Your task to perform on an android device: Set an alarm for 9am Image 0: 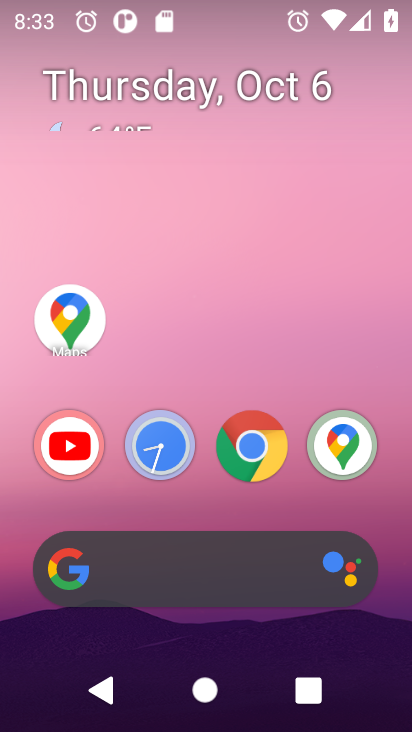
Step 0: click (148, 438)
Your task to perform on an android device: Set an alarm for 9am Image 1: 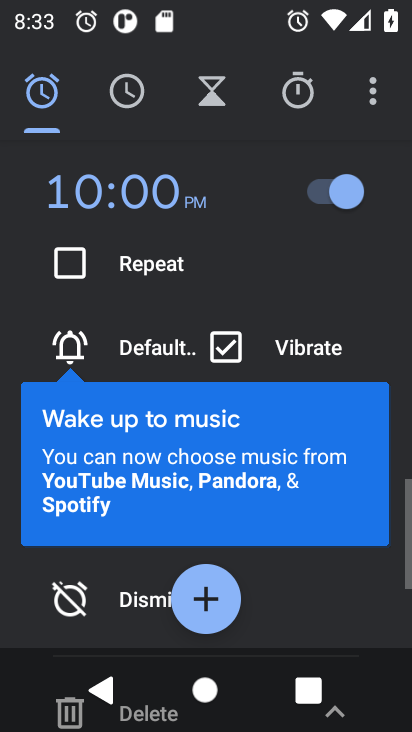
Step 1: click (147, 409)
Your task to perform on an android device: Set an alarm for 9am Image 2: 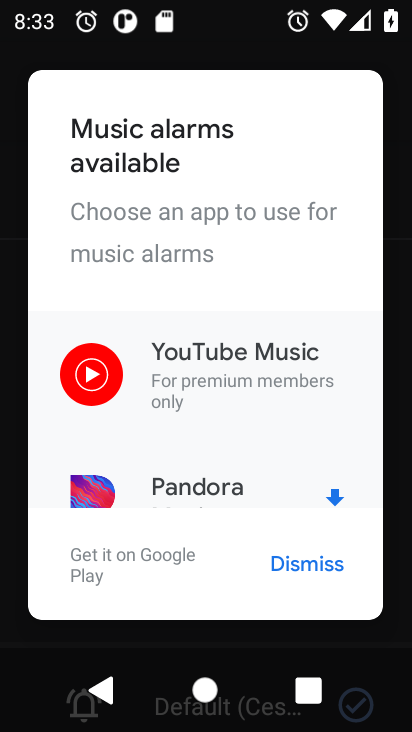
Step 2: click (307, 545)
Your task to perform on an android device: Set an alarm for 9am Image 3: 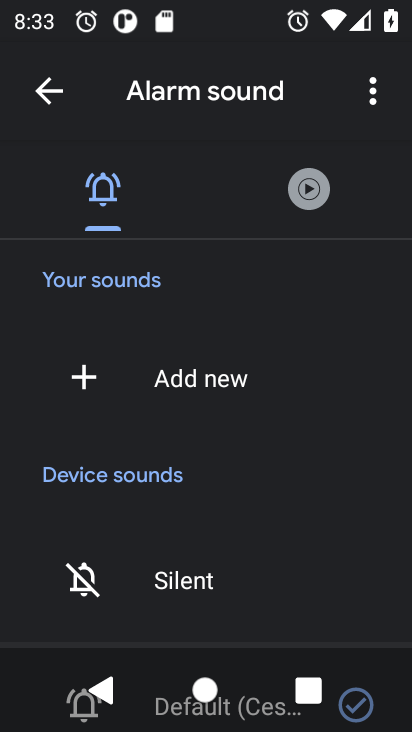
Step 3: click (31, 80)
Your task to perform on an android device: Set an alarm for 9am Image 4: 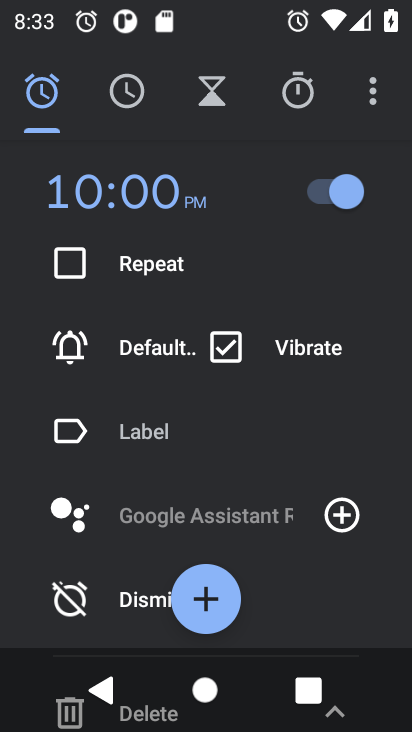
Step 4: click (131, 590)
Your task to perform on an android device: Set an alarm for 9am Image 5: 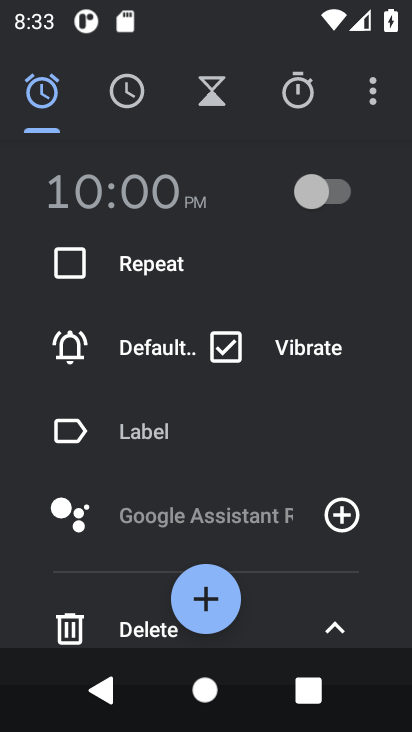
Step 5: click (47, 109)
Your task to perform on an android device: Set an alarm for 9am Image 6: 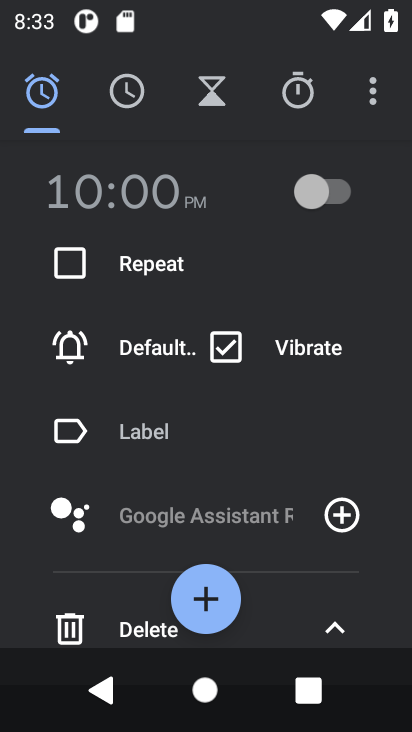
Step 6: click (217, 612)
Your task to perform on an android device: Set an alarm for 9am Image 7: 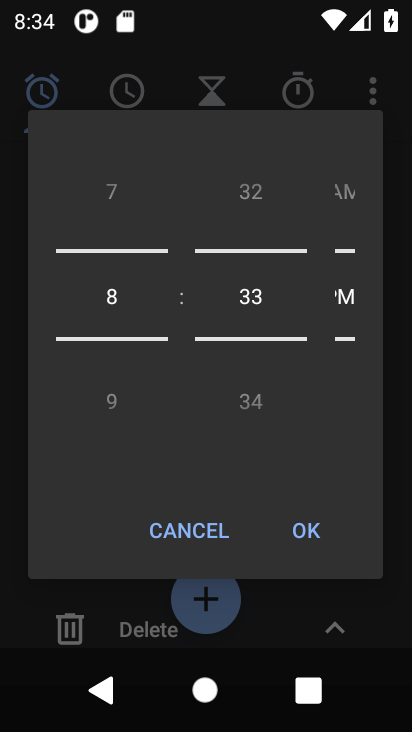
Step 7: click (105, 411)
Your task to perform on an android device: Set an alarm for 9am Image 8: 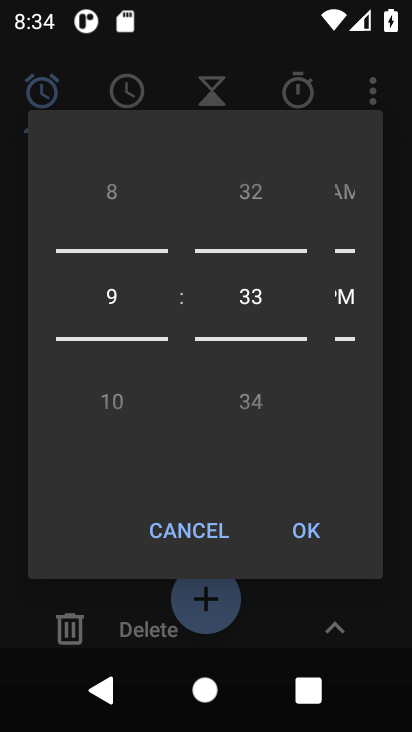
Step 8: click (114, 403)
Your task to perform on an android device: Set an alarm for 9am Image 9: 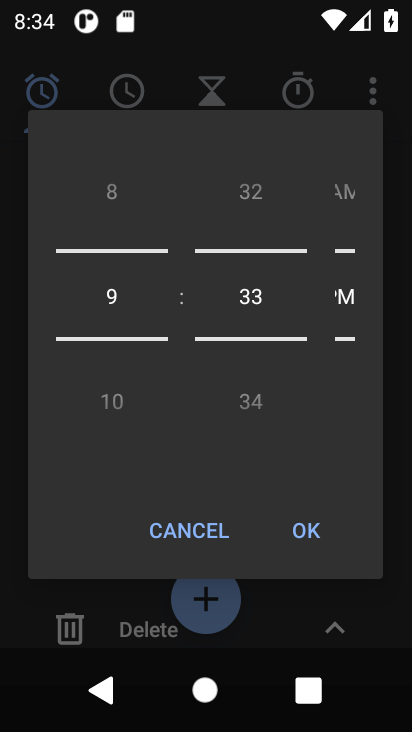
Step 9: click (243, 294)
Your task to perform on an android device: Set an alarm for 9am Image 10: 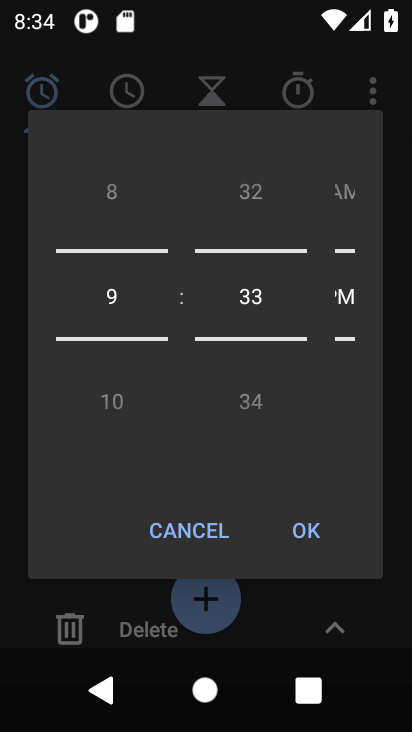
Step 10: click (243, 294)
Your task to perform on an android device: Set an alarm for 9am Image 11: 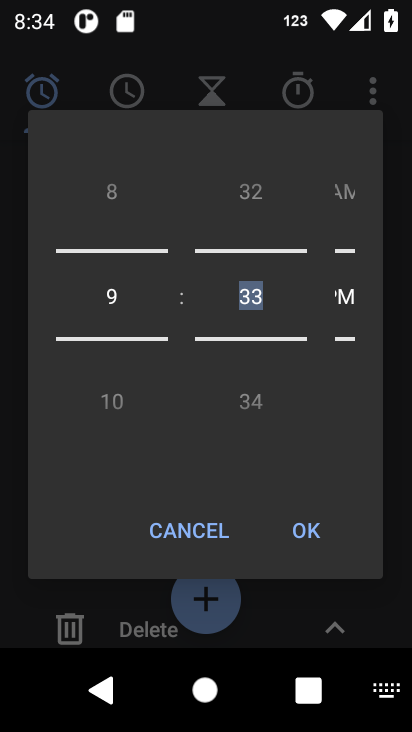
Step 11: click (97, 413)
Your task to perform on an android device: Set an alarm for 9am Image 12: 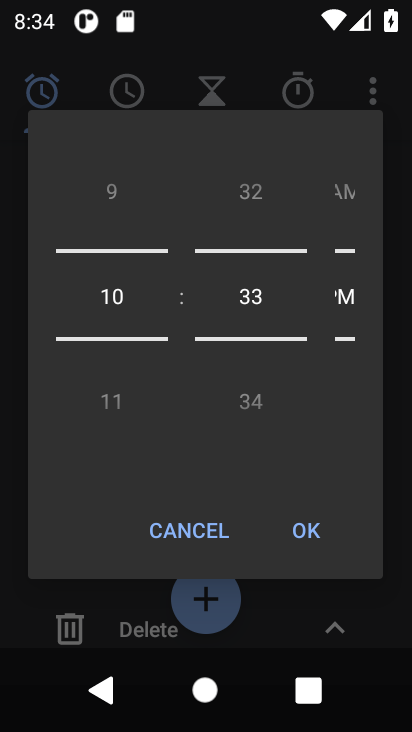
Step 12: click (247, 210)
Your task to perform on an android device: Set an alarm for 9am Image 13: 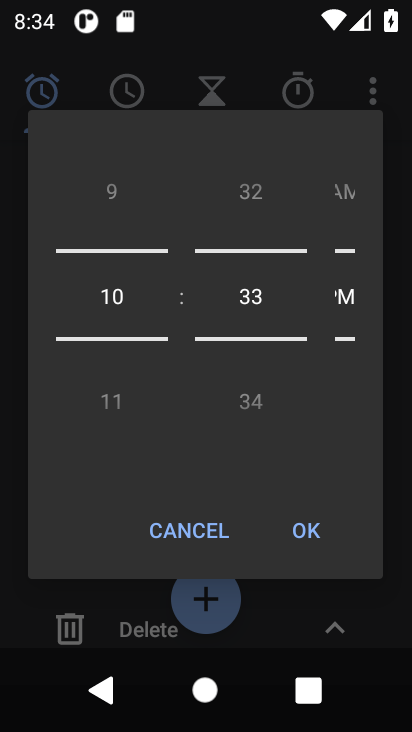
Step 13: click (247, 210)
Your task to perform on an android device: Set an alarm for 9am Image 14: 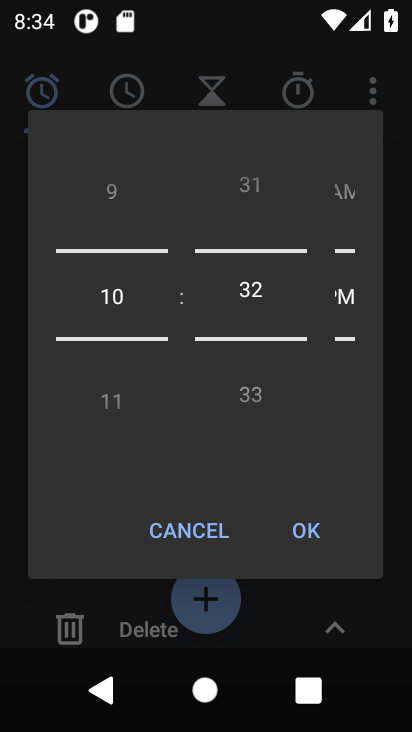
Step 14: click (247, 210)
Your task to perform on an android device: Set an alarm for 9am Image 15: 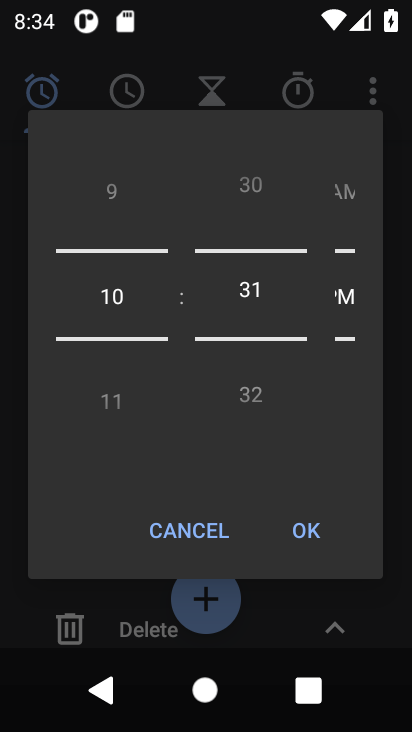
Step 15: click (247, 210)
Your task to perform on an android device: Set an alarm for 9am Image 16: 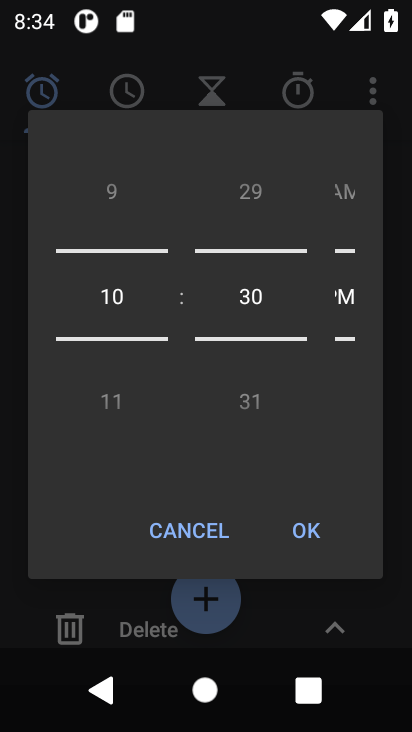
Step 16: click (247, 210)
Your task to perform on an android device: Set an alarm for 9am Image 17: 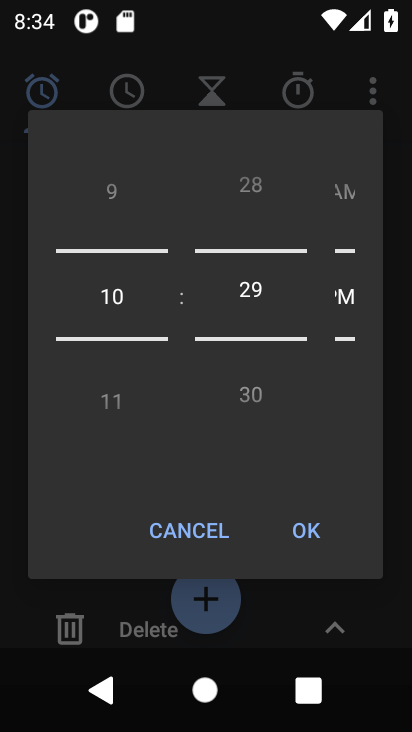
Step 17: click (247, 210)
Your task to perform on an android device: Set an alarm for 9am Image 18: 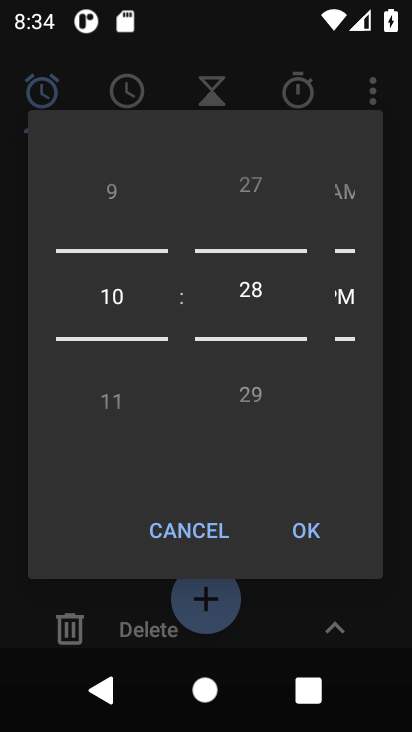
Step 18: click (247, 210)
Your task to perform on an android device: Set an alarm for 9am Image 19: 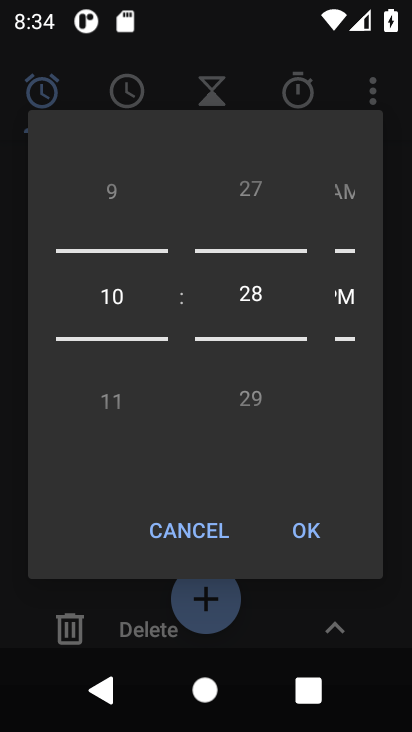
Step 19: click (247, 210)
Your task to perform on an android device: Set an alarm for 9am Image 20: 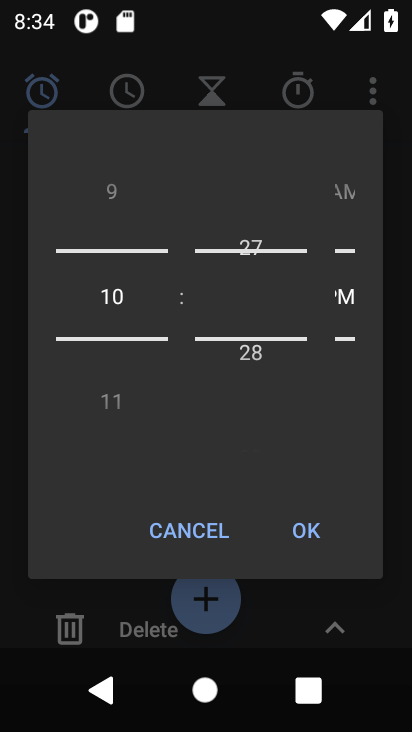
Step 20: click (247, 210)
Your task to perform on an android device: Set an alarm for 9am Image 21: 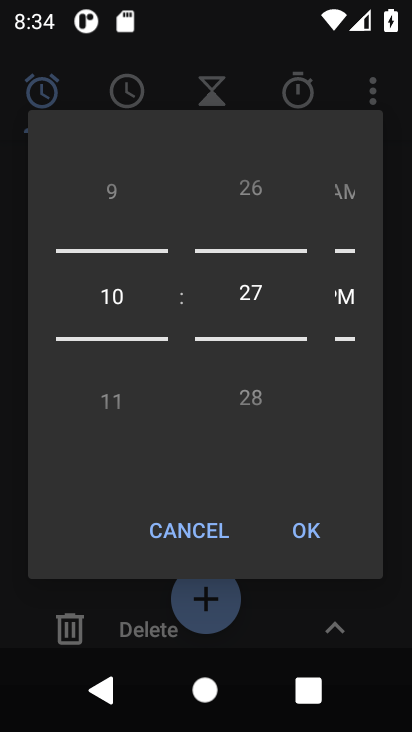
Step 21: click (247, 210)
Your task to perform on an android device: Set an alarm for 9am Image 22: 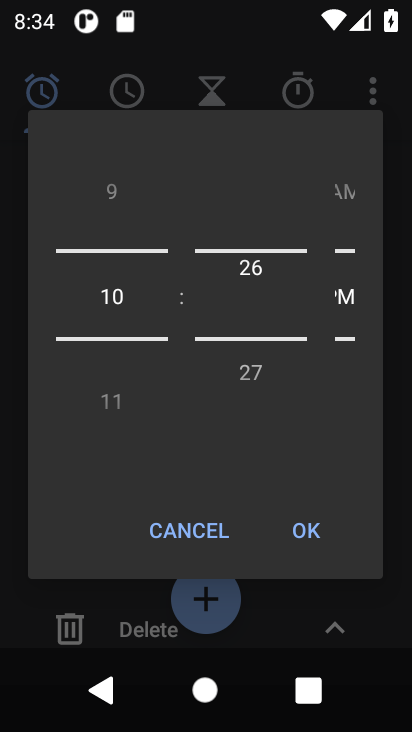
Step 22: click (247, 210)
Your task to perform on an android device: Set an alarm for 9am Image 23: 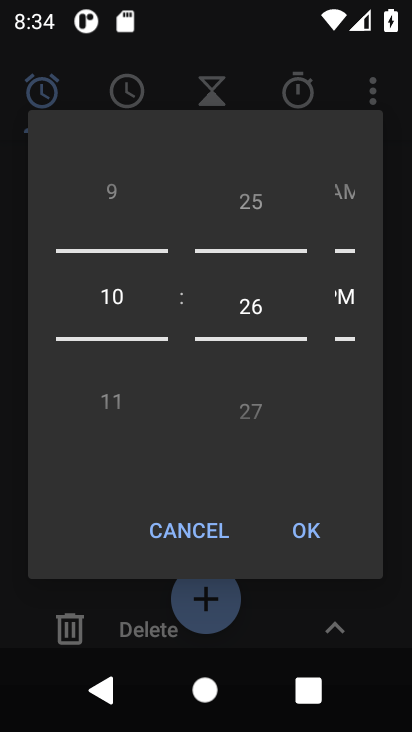
Step 23: click (247, 210)
Your task to perform on an android device: Set an alarm for 9am Image 24: 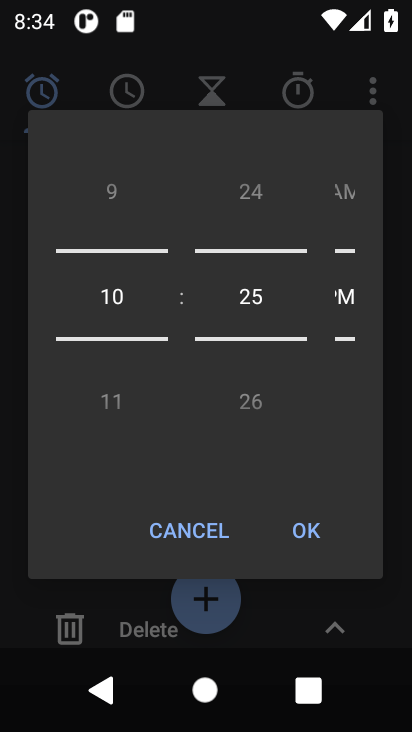
Step 24: click (247, 210)
Your task to perform on an android device: Set an alarm for 9am Image 25: 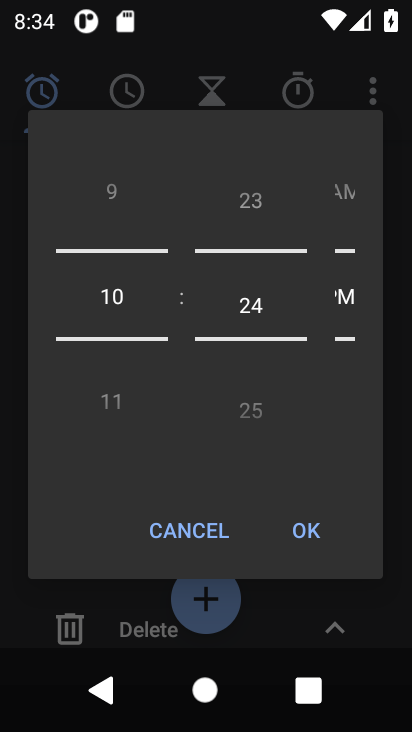
Step 25: click (247, 210)
Your task to perform on an android device: Set an alarm for 9am Image 26: 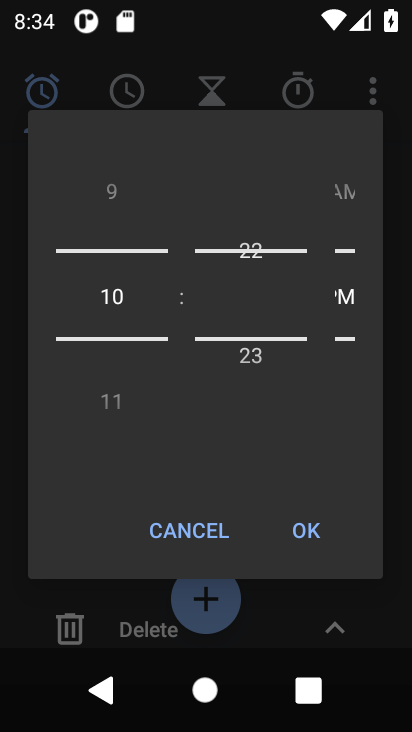
Step 26: click (247, 210)
Your task to perform on an android device: Set an alarm for 9am Image 27: 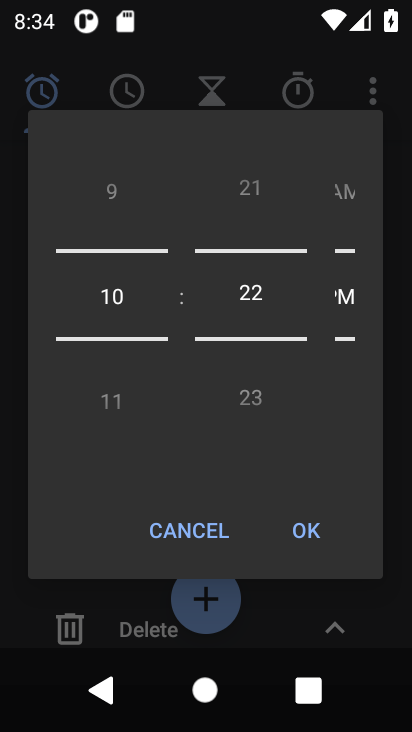
Step 27: click (247, 210)
Your task to perform on an android device: Set an alarm for 9am Image 28: 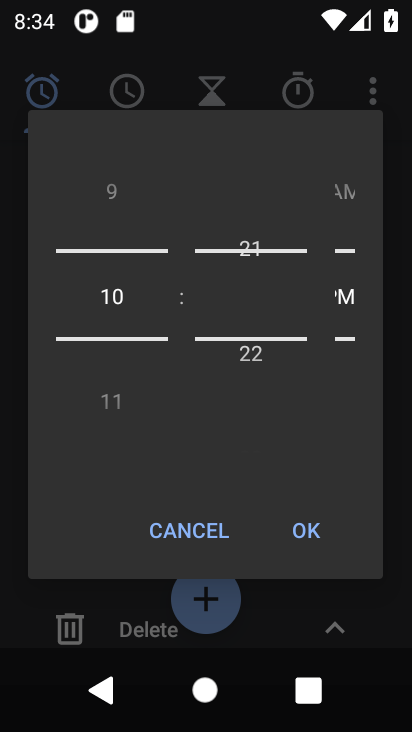
Step 28: click (247, 210)
Your task to perform on an android device: Set an alarm for 9am Image 29: 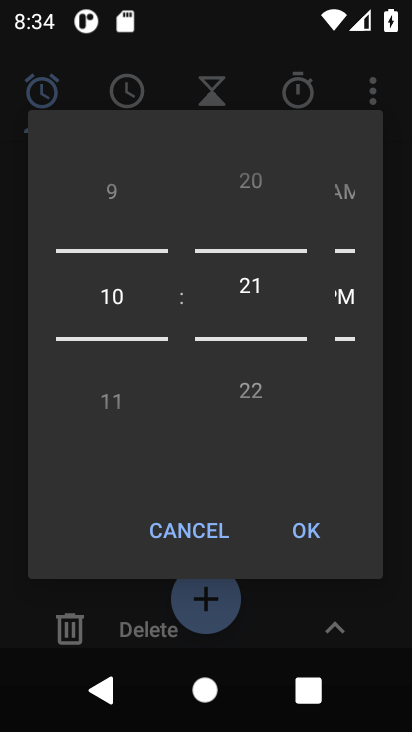
Step 29: click (247, 210)
Your task to perform on an android device: Set an alarm for 9am Image 30: 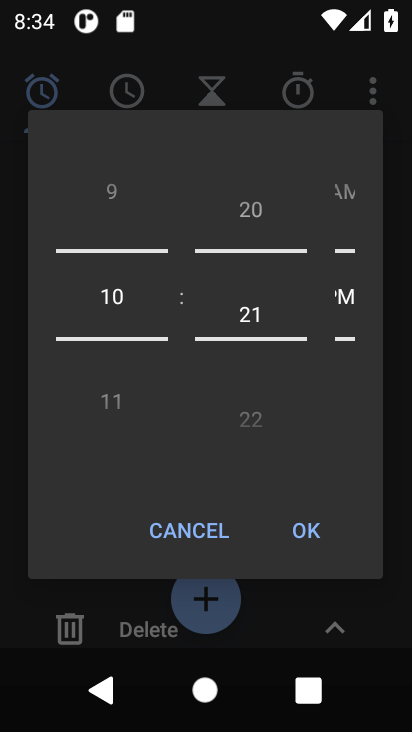
Step 30: click (247, 210)
Your task to perform on an android device: Set an alarm for 9am Image 31: 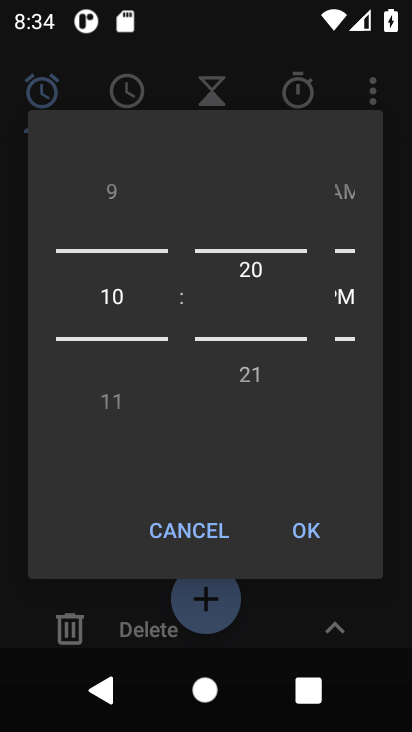
Step 31: click (247, 210)
Your task to perform on an android device: Set an alarm for 9am Image 32: 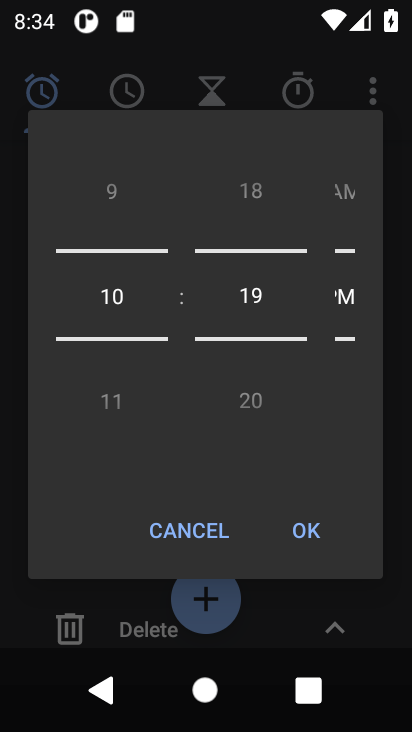
Step 32: click (247, 210)
Your task to perform on an android device: Set an alarm for 9am Image 33: 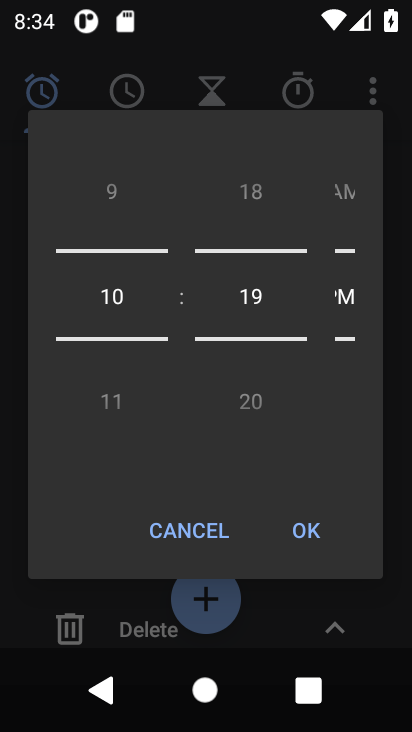
Step 33: click (247, 210)
Your task to perform on an android device: Set an alarm for 9am Image 34: 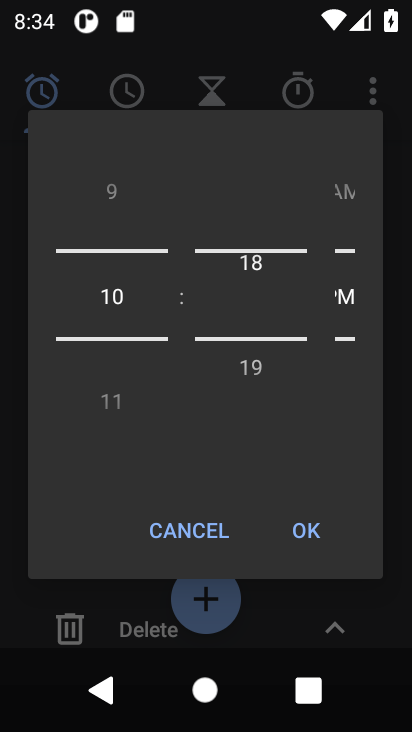
Step 34: click (247, 210)
Your task to perform on an android device: Set an alarm for 9am Image 35: 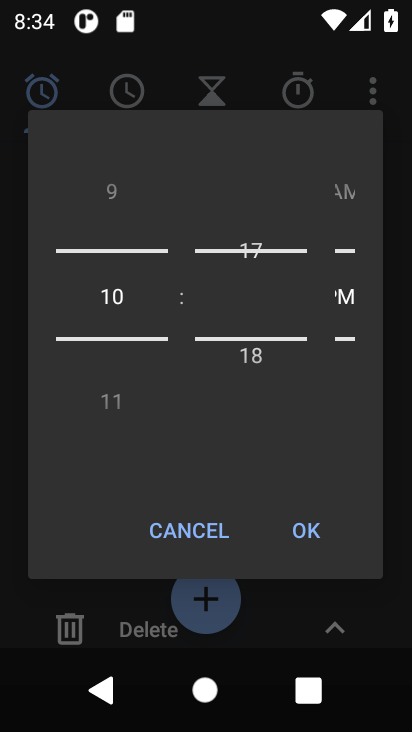
Step 35: click (247, 210)
Your task to perform on an android device: Set an alarm for 9am Image 36: 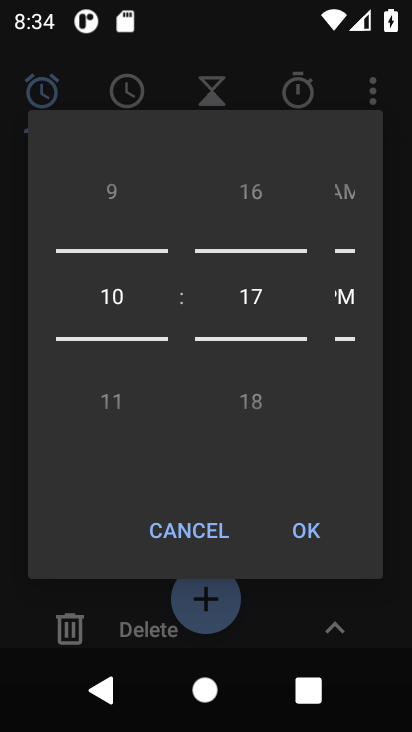
Step 36: click (247, 210)
Your task to perform on an android device: Set an alarm for 9am Image 37: 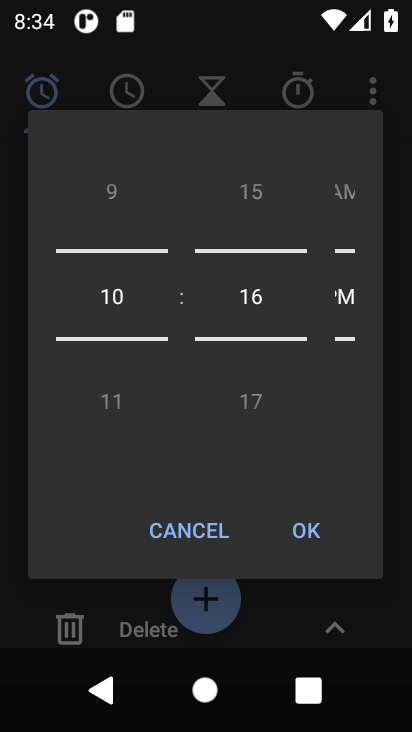
Step 37: click (247, 210)
Your task to perform on an android device: Set an alarm for 9am Image 38: 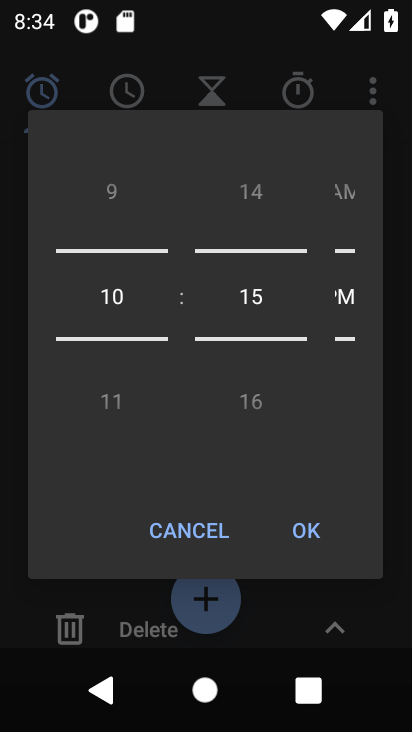
Step 38: click (247, 210)
Your task to perform on an android device: Set an alarm for 9am Image 39: 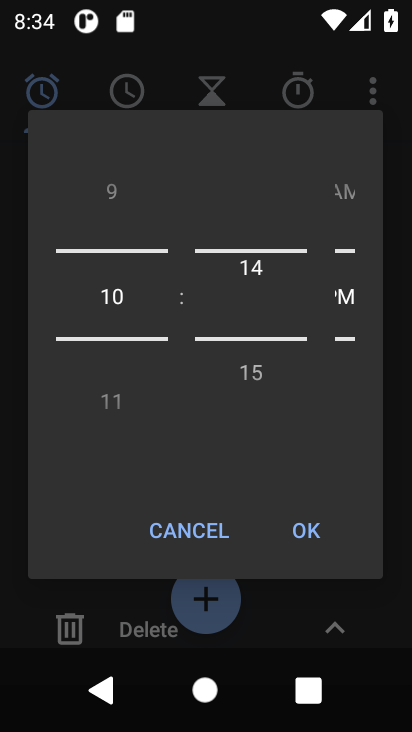
Step 39: click (247, 210)
Your task to perform on an android device: Set an alarm for 9am Image 40: 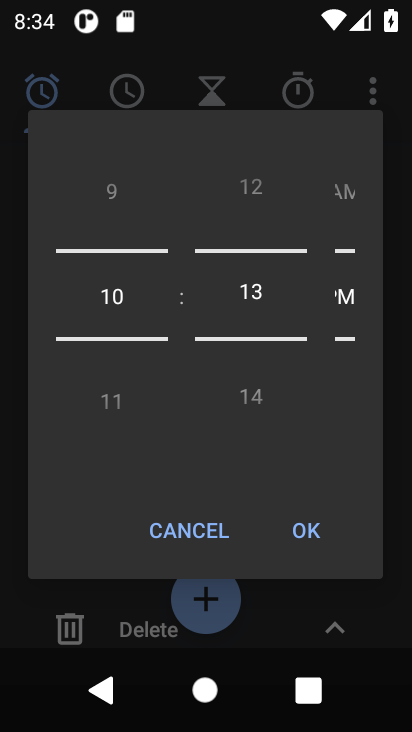
Step 40: click (247, 210)
Your task to perform on an android device: Set an alarm for 9am Image 41: 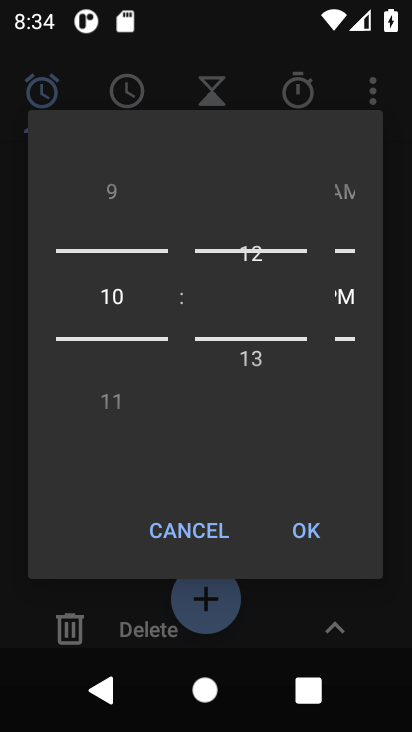
Step 41: click (247, 210)
Your task to perform on an android device: Set an alarm for 9am Image 42: 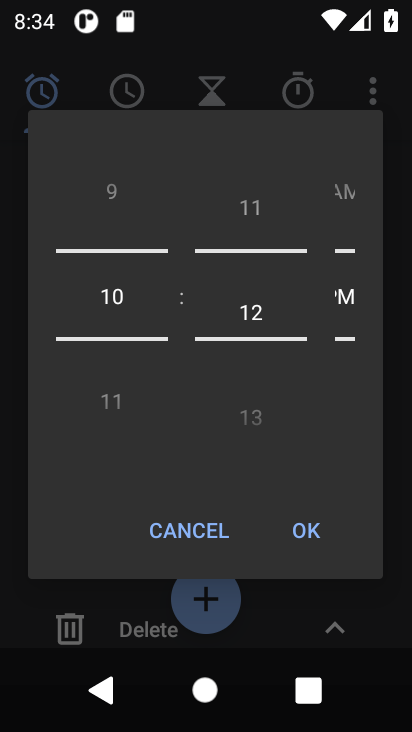
Step 42: click (247, 210)
Your task to perform on an android device: Set an alarm for 9am Image 43: 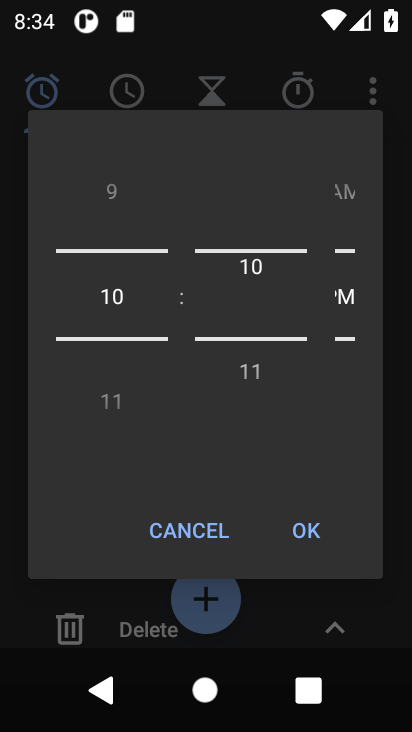
Step 43: click (247, 210)
Your task to perform on an android device: Set an alarm for 9am Image 44: 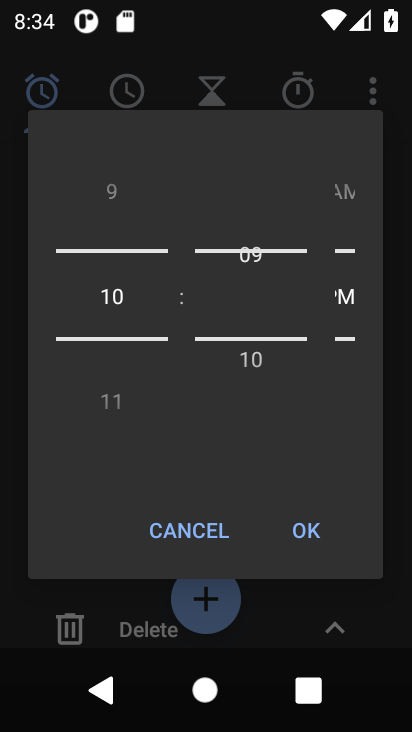
Step 44: click (247, 210)
Your task to perform on an android device: Set an alarm for 9am Image 45: 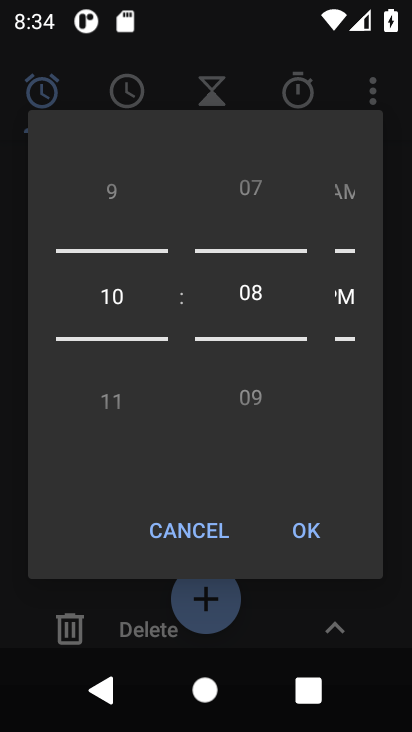
Step 45: click (247, 210)
Your task to perform on an android device: Set an alarm for 9am Image 46: 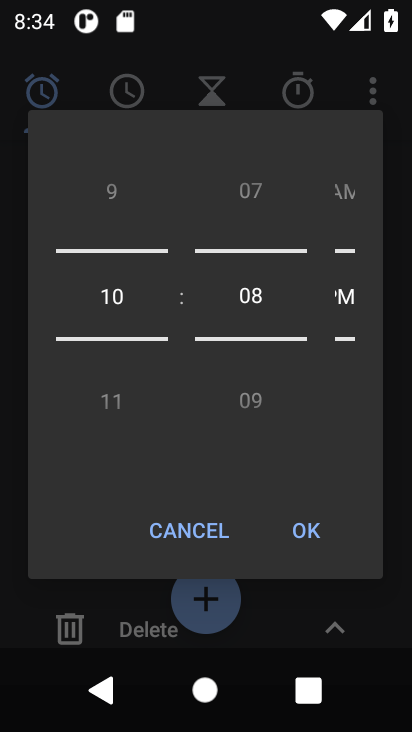
Step 46: click (247, 210)
Your task to perform on an android device: Set an alarm for 9am Image 47: 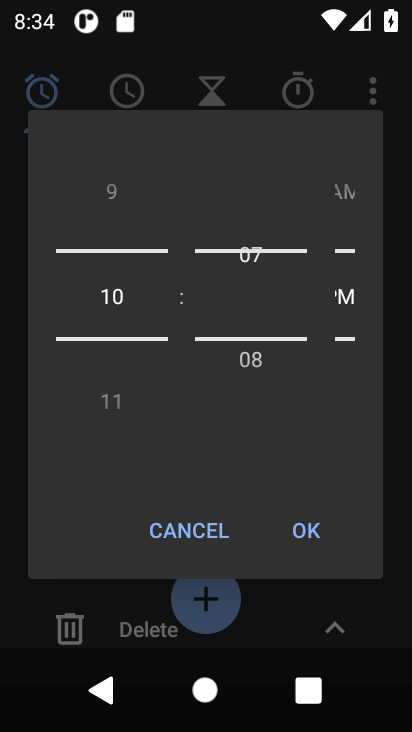
Step 47: click (247, 210)
Your task to perform on an android device: Set an alarm for 9am Image 48: 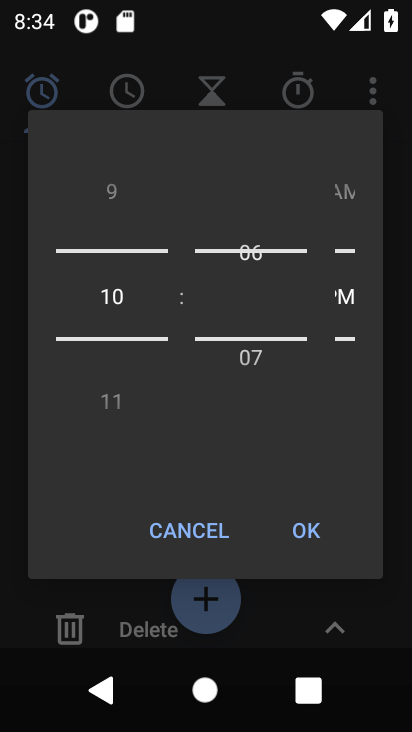
Step 48: click (247, 210)
Your task to perform on an android device: Set an alarm for 9am Image 49: 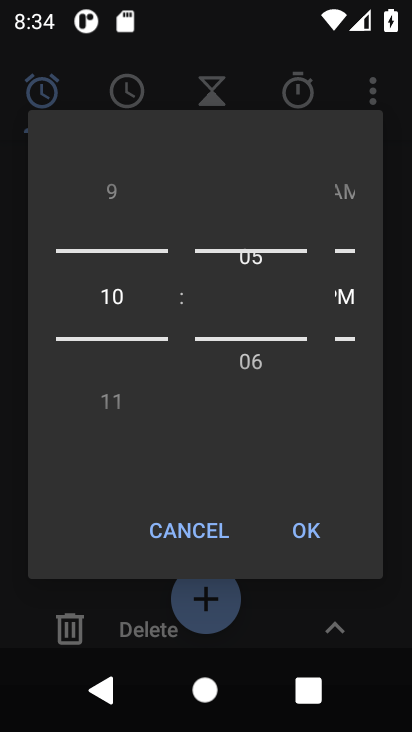
Step 49: click (247, 210)
Your task to perform on an android device: Set an alarm for 9am Image 50: 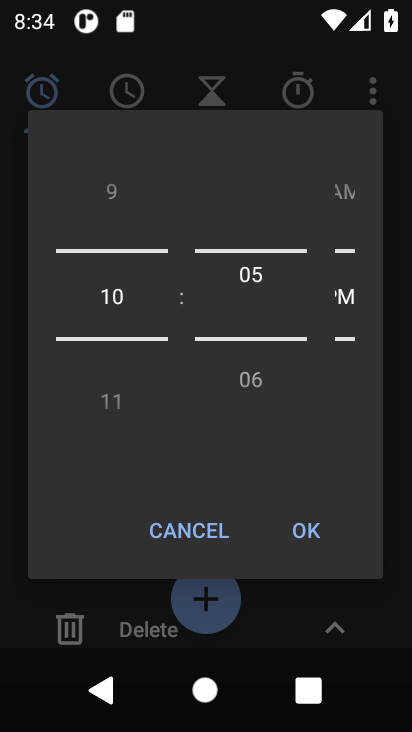
Step 50: click (247, 210)
Your task to perform on an android device: Set an alarm for 9am Image 51: 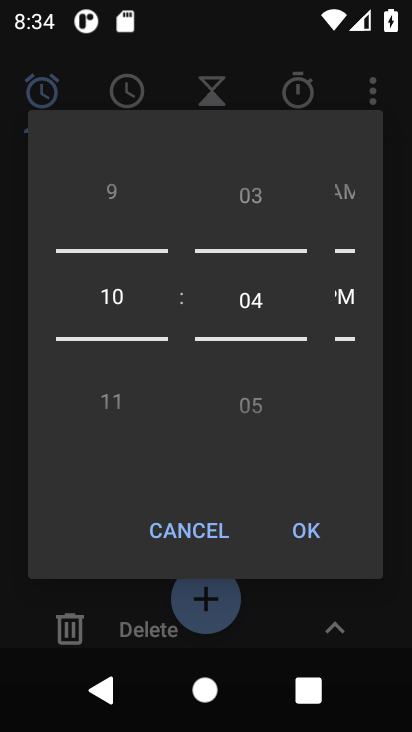
Step 51: click (247, 210)
Your task to perform on an android device: Set an alarm for 9am Image 52: 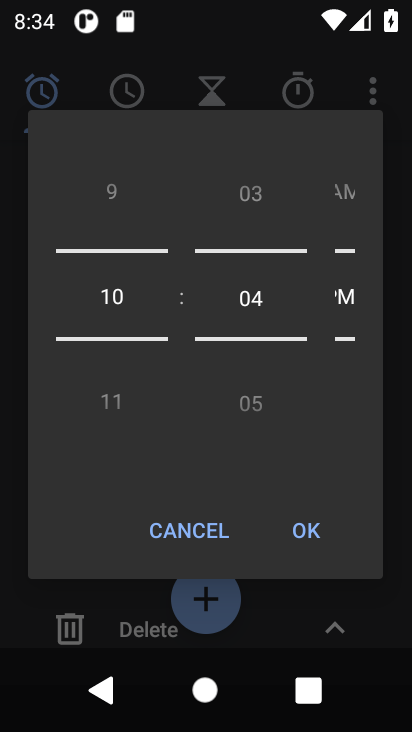
Step 52: click (247, 210)
Your task to perform on an android device: Set an alarm for 9am Image 53: 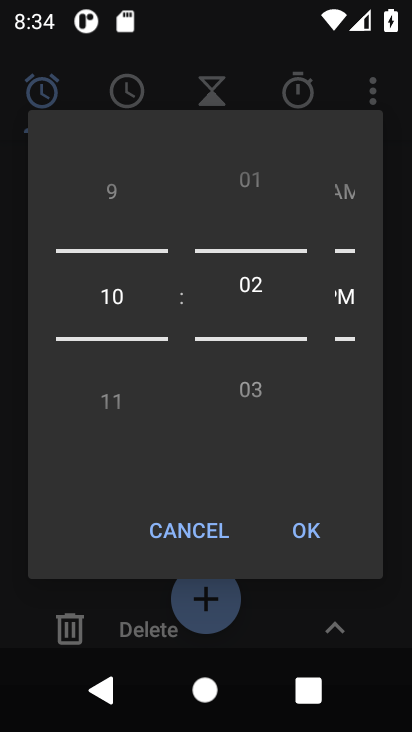
Step 53: click (247, 210)
Your task to perform on an android device: Set an alarm for 9am Image 54: 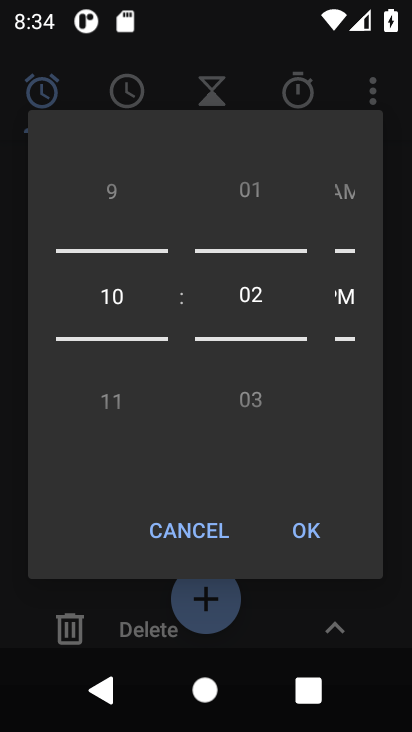
Step 54: click (247, 210)
Your task to perform on an android device: Set an alarm for 9am Image 55: 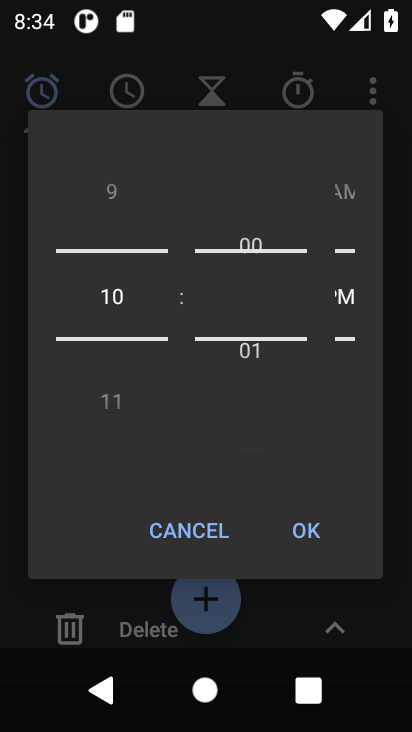
Step 55: click (247, 210)
Your task to perform on an android device: Set an alarm for 9am Image 56: 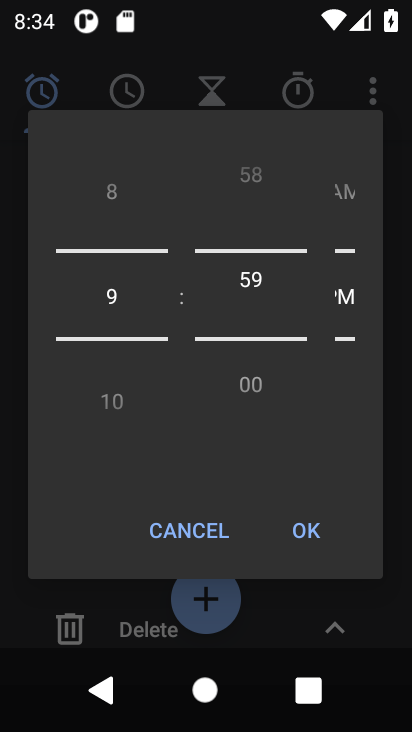
Step 56: click (247, 210)
Your task to perform on an android device: Set an alarm for 9am Image 57: 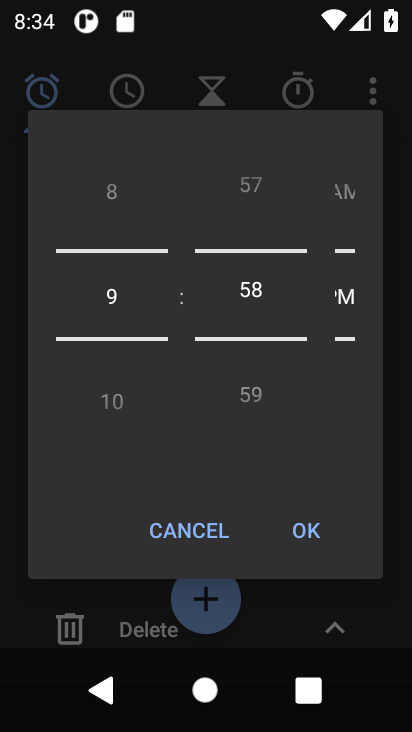
Step 57: click (247, 210)
Your task to perform on an android device: Set an alarm for 9am Image 58: 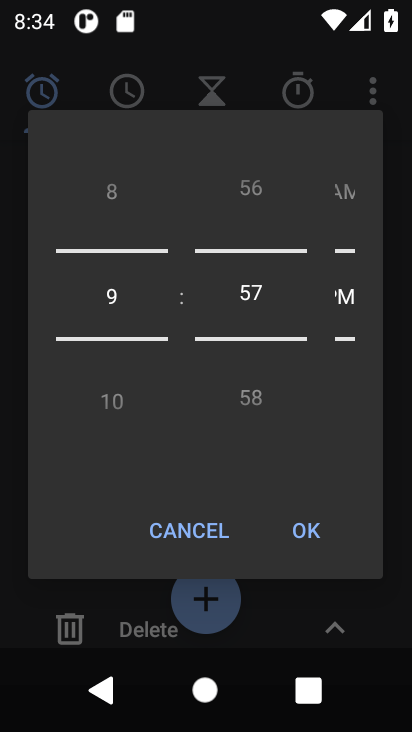
Step 58: click (247, 210)
Your task to perform on an android device: Set an alarm for 9am Image 59: 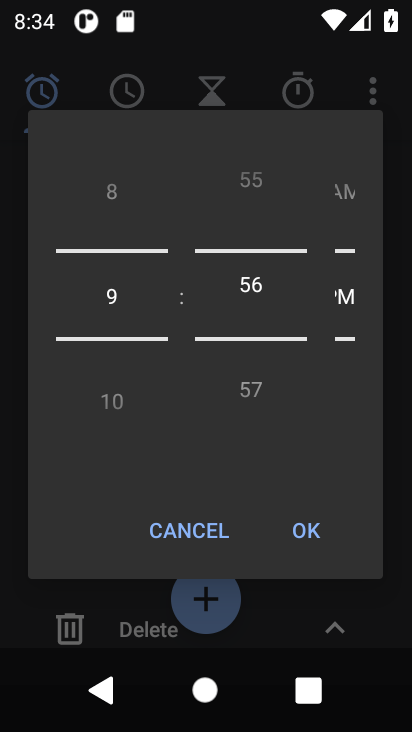
Step 59: click (247, 210)
Your task to perform on an android device: Set an alarm for 9am Image 60: 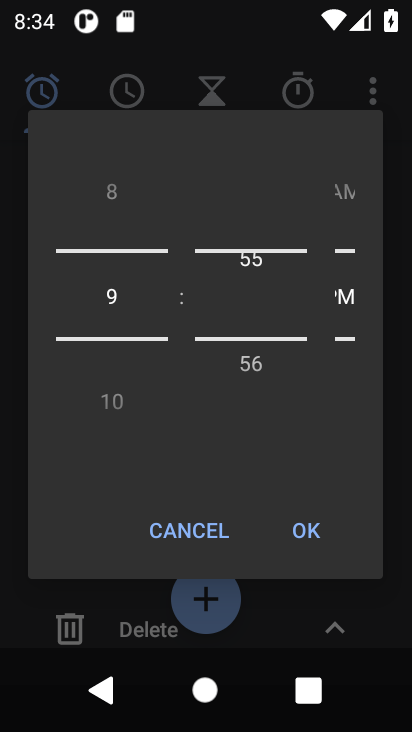
Step 60: click (247, 210)
Your task to perform on an android device: Set an alarm for 9am Image 61: 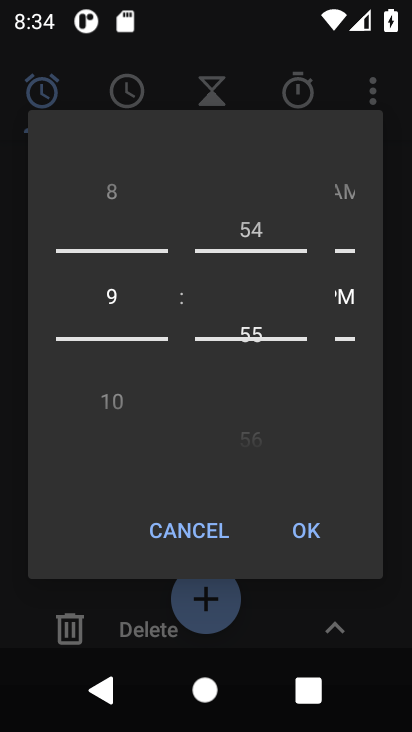
Step 61: click (247, 210)
Your task to perform on an android device: Set an alarm for 9am Image 62: 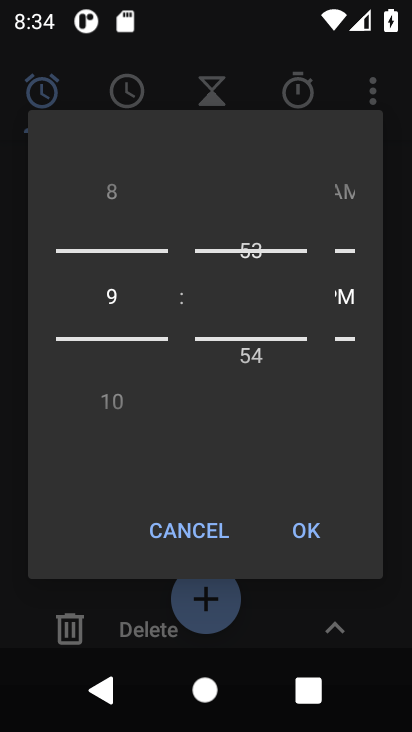
Step 62: click (247, 210)
Your task to perform on an android device: Set an alarm for 9am Image 63: 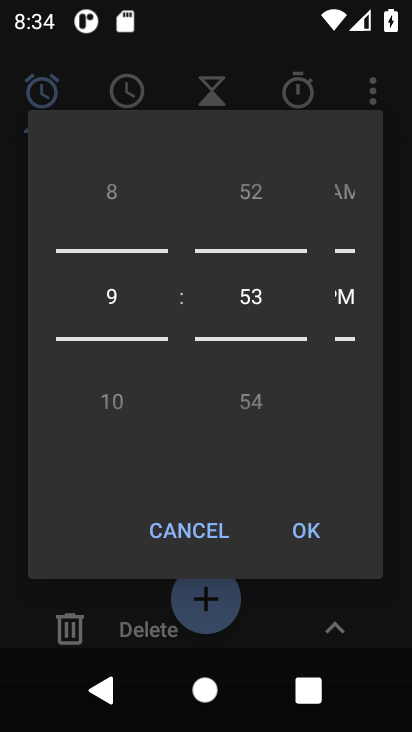
Step 63: click (252, 415)
Your task to perform on an android device: Set an alarm for 9am Image 64: 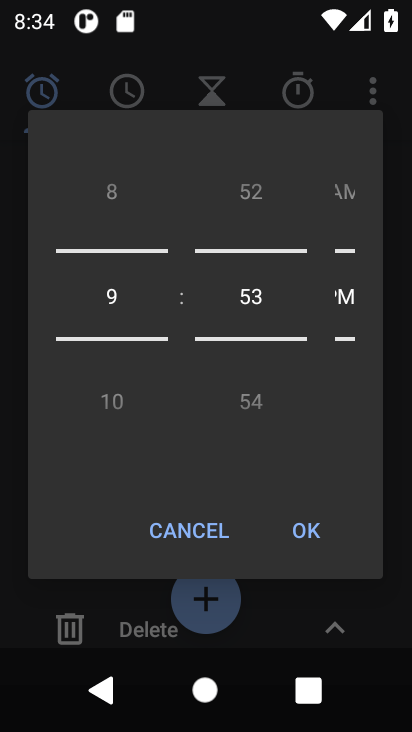
Step 64: click (252, 415)
Your task to perform on an android device: Set an alarm for 9am Image 65: 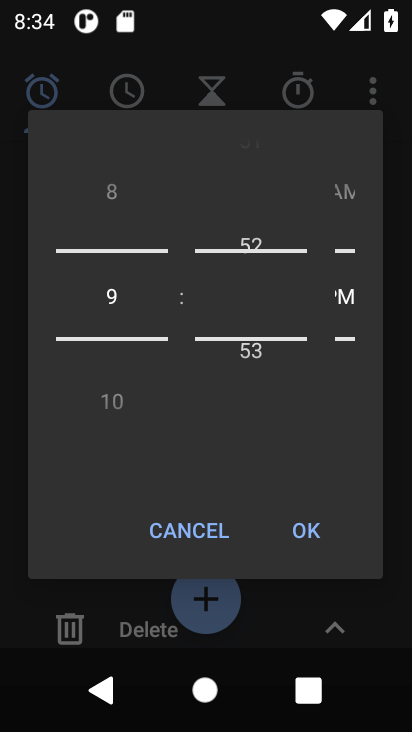
Step 65: click (252, 415)
Your task to perform on an android device: Set an alarm for 9am Image 66: 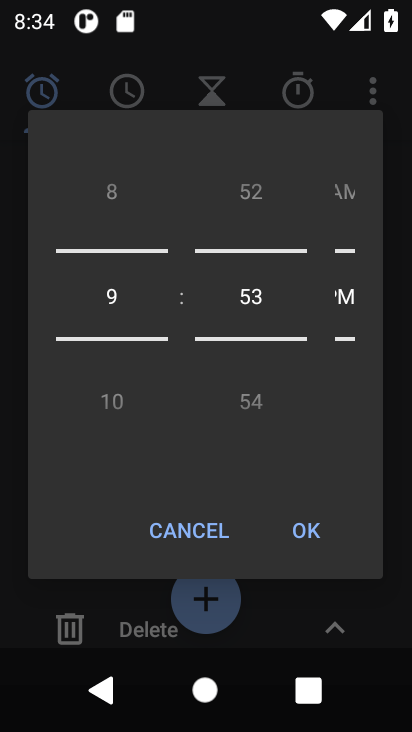
Step 66: click (252, 415)
Your task to perform on an android device: Set an alarm for 9am Image 67: 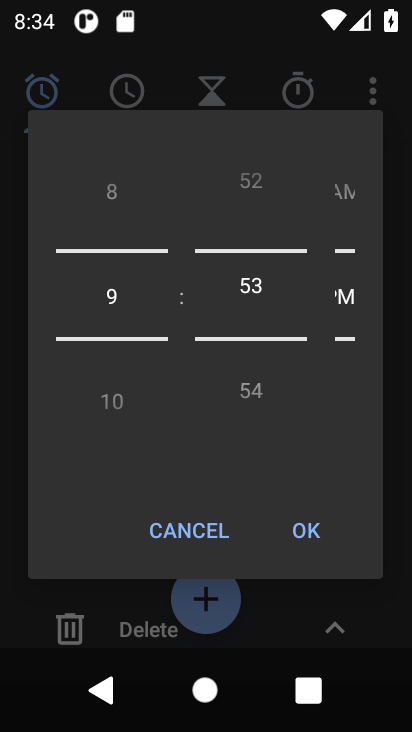
Step 67: click (252, 415)
Your task to perform on an android device: Set an alarm for 9am Image 68: 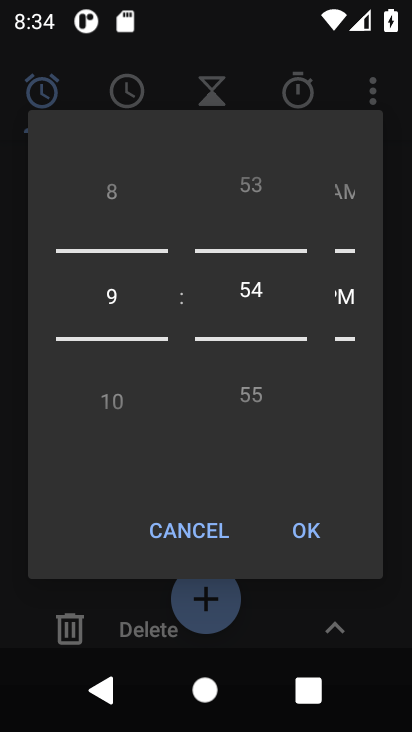
Step 68: click (252, 415)
Your task to perform on an android device: Set an alarm for 9am Image 69: 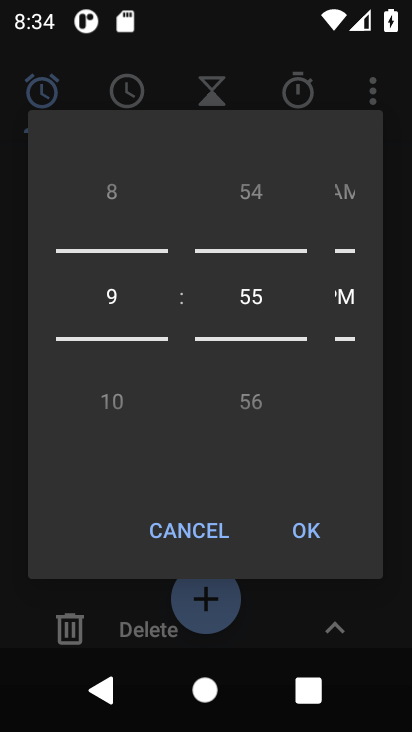
Step 69: click (252, 415)
Your task to perform on an android device: Set an alarm for 9am Image 70: 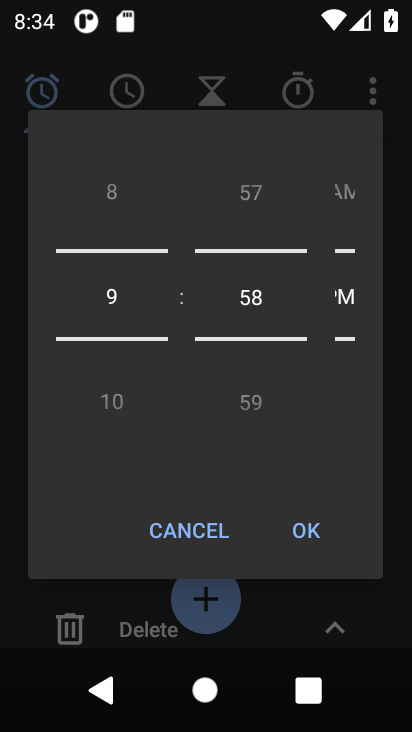
Step 70: click (252, 415)
Your task to perform on an android device: Set an alarm for 9am Image 71: 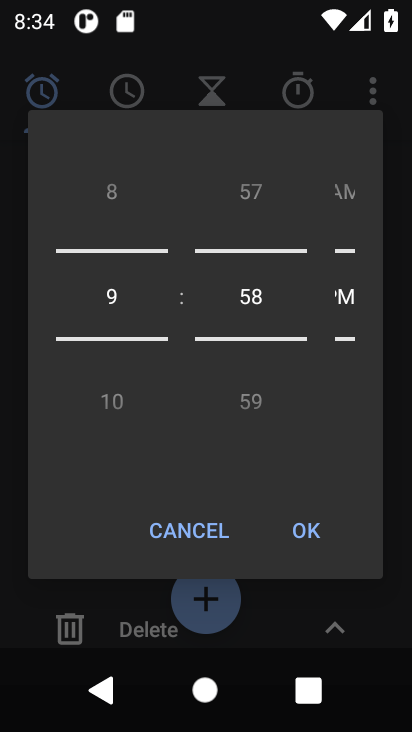
Step 71: click (252, 415)
Your task to perform on an android device: Set an alarm for 9am Image 72: 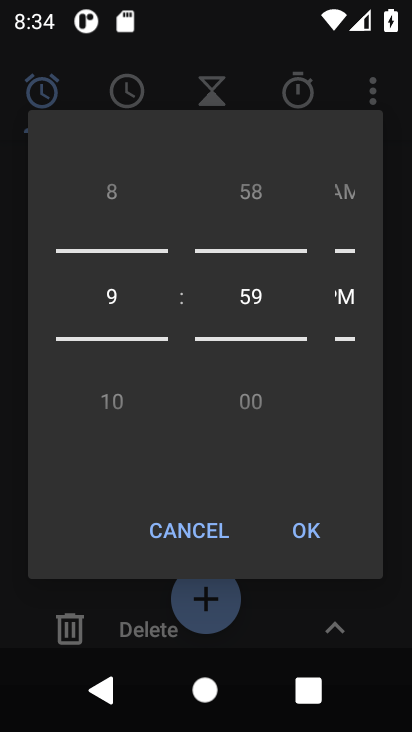
Step 72: click (252, 415)
Your task to perform on an android device: Set an alarm for 9am Image 73: 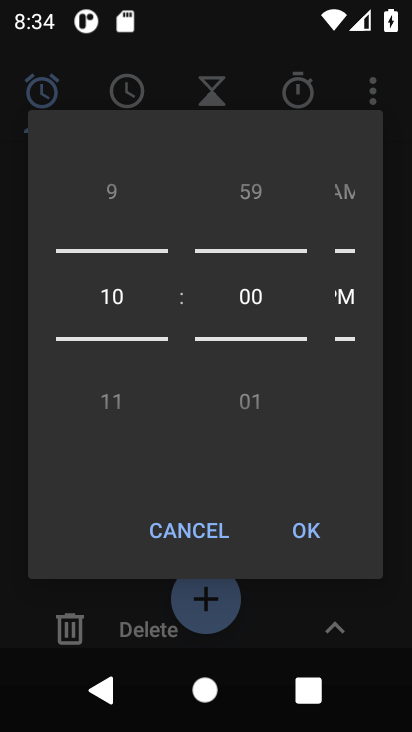
Step 73: click (348, 206)
Your task to perform on an android device: Set an alarm for 9am Image 74: 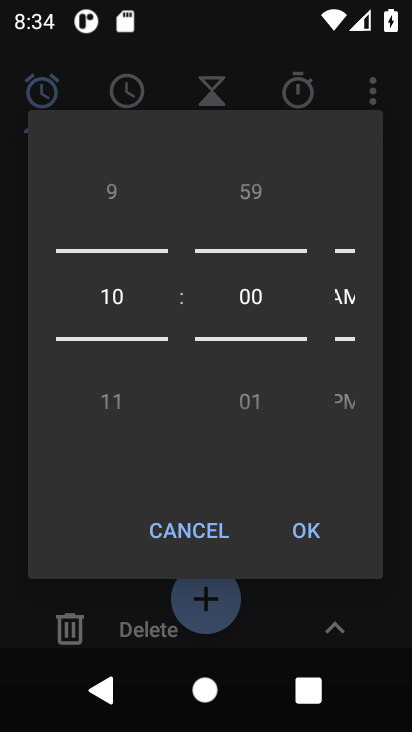
Step 74: click (117, 217)
Your task to perform on an android device: Set an alarm for 9am Image 75: 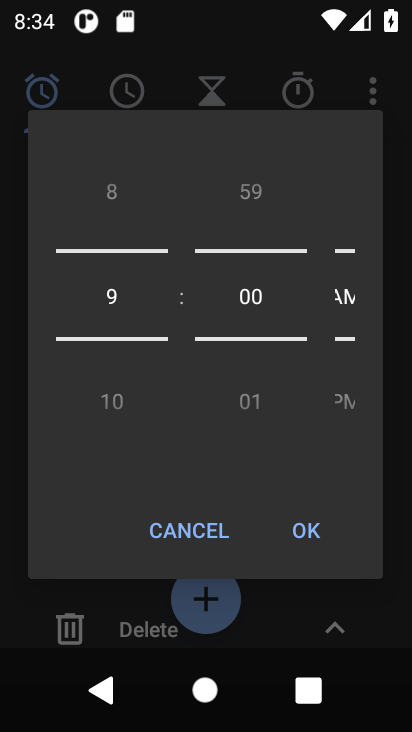
Step 75: task complete